Your task to perform on an android device: set the timer Image 0: 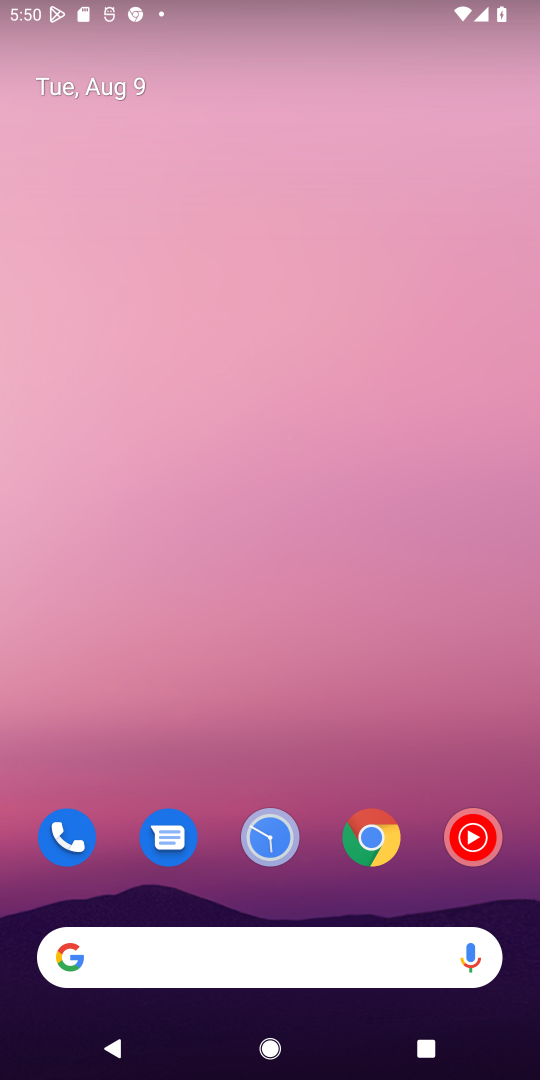
Step 0: drag from (201, 826) to (199, 180)
Your task to perform on an android device: set the timer Image 1: 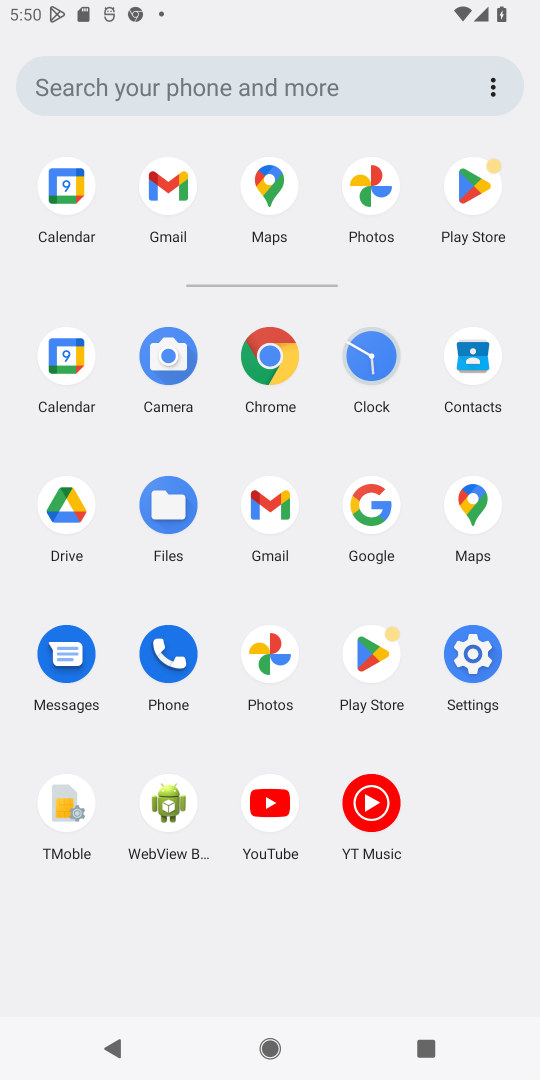
Step 1: click (369, 327)
Your task to perform on an android device: set the timer Image 2: 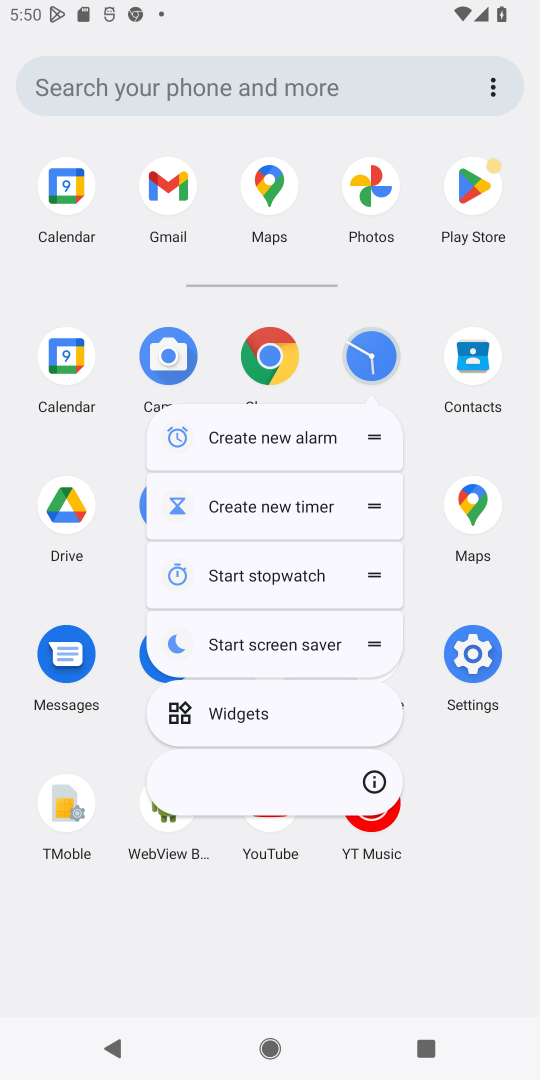
Step 2: click (369, 349)
Your task to perform on an android device: set the timer Image 3: 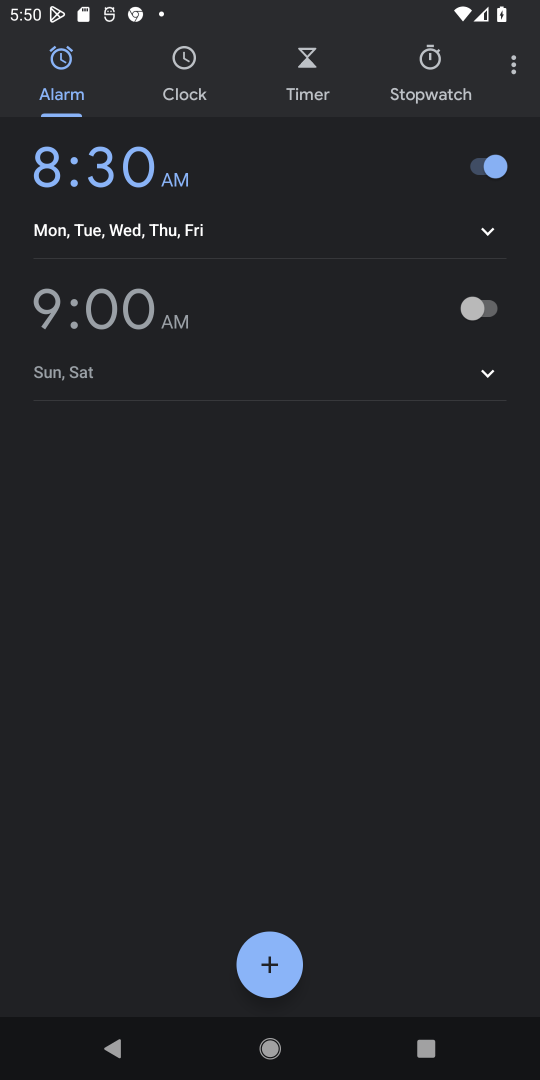
Step 3: click (314, 53)
Your task to perform on an android device: set the timer Image 4: 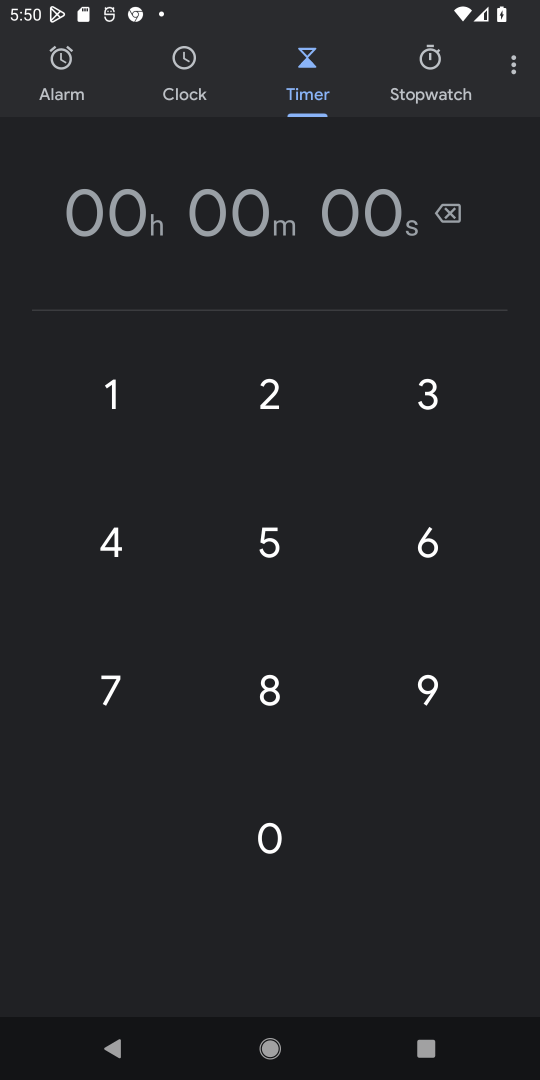
Step 4: click (255, 207)
Your task to perform on an android device: set the timer Image 5: 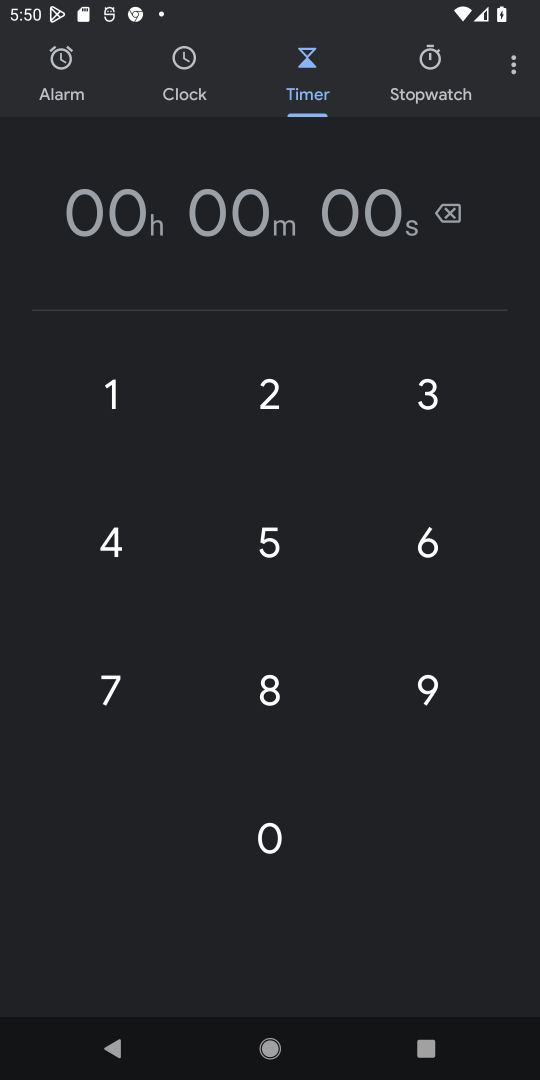
Step 5: type "85858585 "
Your task to perform on an android device: set the timer Image 6: 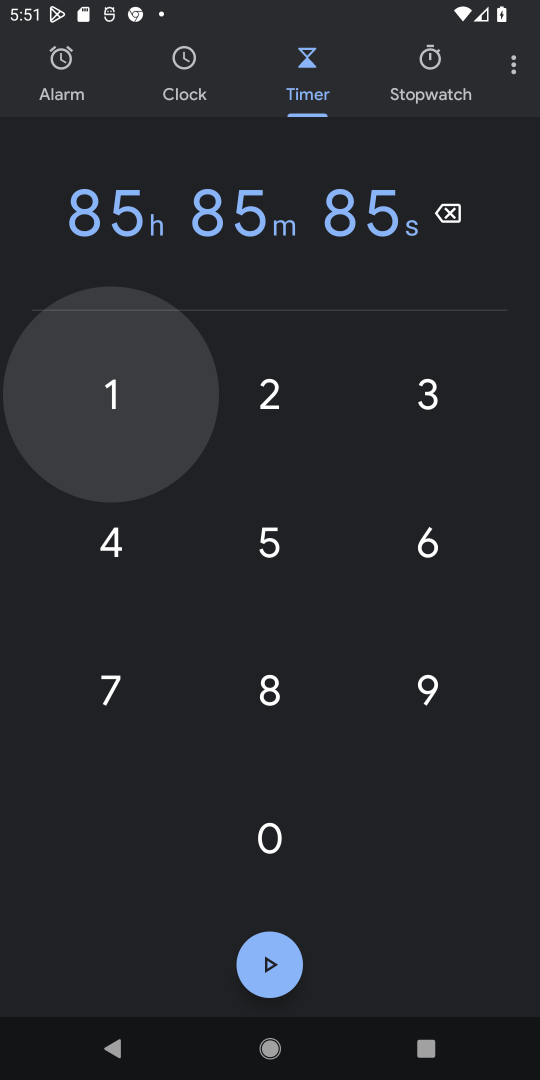
Step 6: task complete